Your task to perform on an android device: Open eBay Image 0: 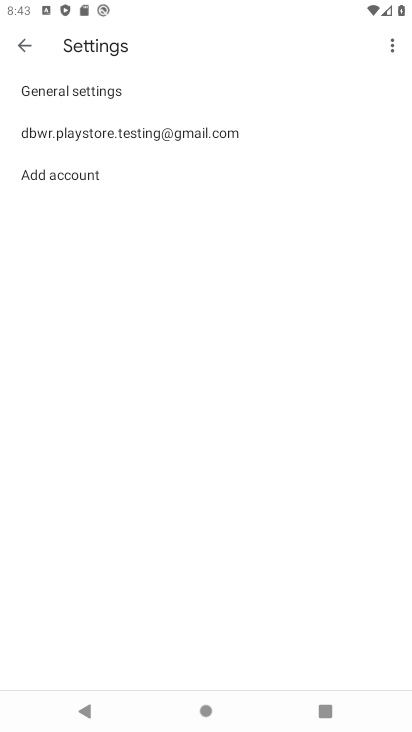
Step 0: press home button
Your task to perform on an android device: Open eBay Image 1: 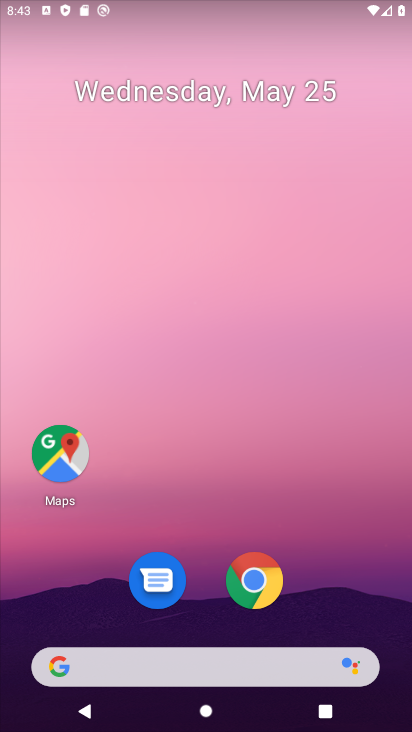
Step 1: click (241, 574)
Your task to perform on an android device: Open eBay Image 2: 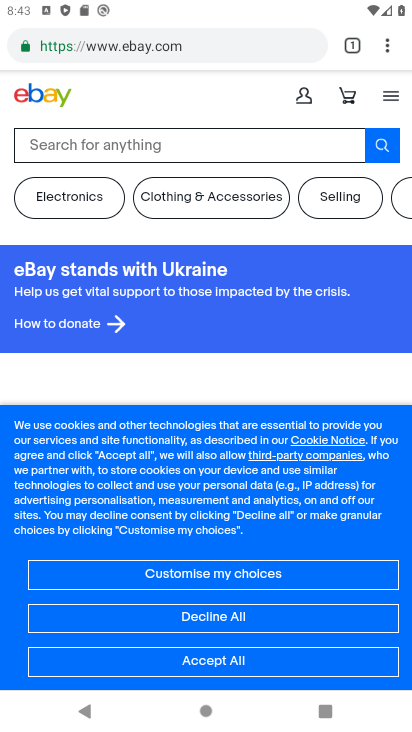
Step 2: task complete